Your task to perform on an android device: open a new tab in the chrome app Image 0: 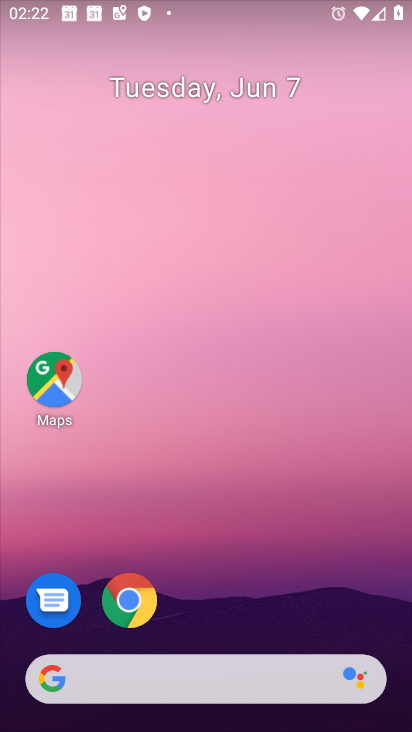
Step 0: click (135, 595)
Your task to perform on an android device: open a new tab in the chrome app Image 1: 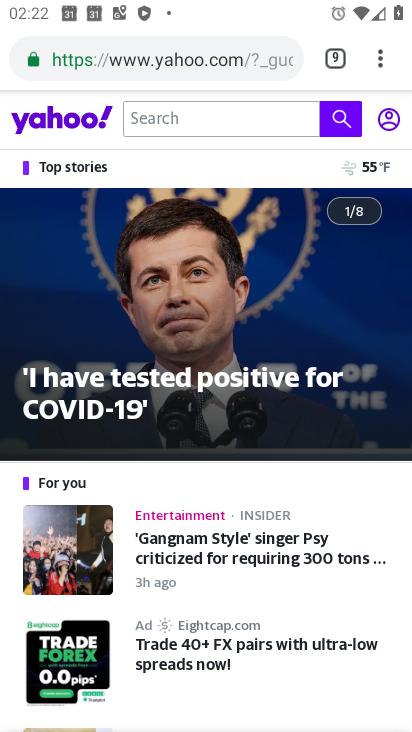
Step 1: click (383, 63)
Your task to perform on an android device: open a new tab in the chrome app Image 2: 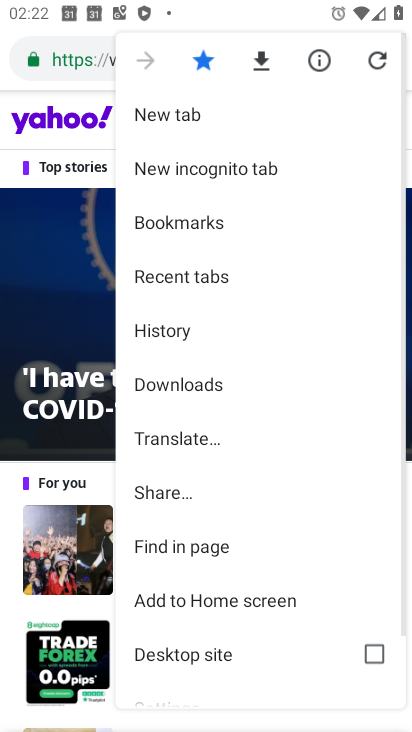
Step 2: click (165, 115)
Your task to perform on an android device: open a new tab in the chrome app Image 3: 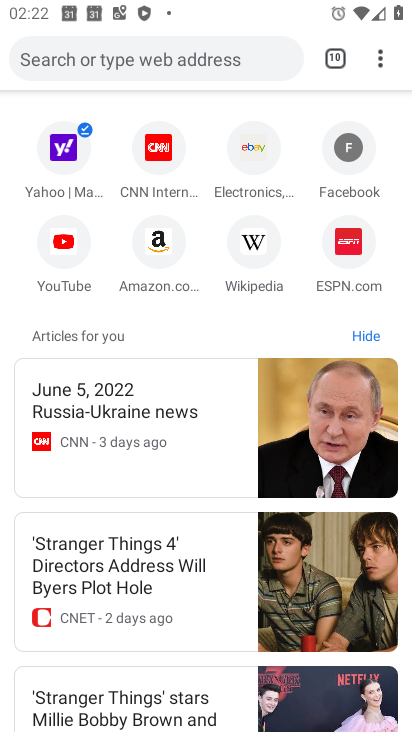
Step 3: task complete